Your task to perform on an android device: Go to battery settings Image 0: 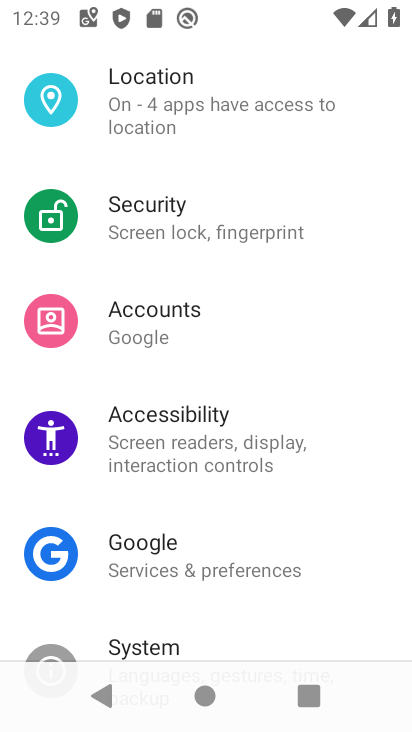
Step 0: press home button
Your task to perform on an android device: Go to battery settings Image 1: 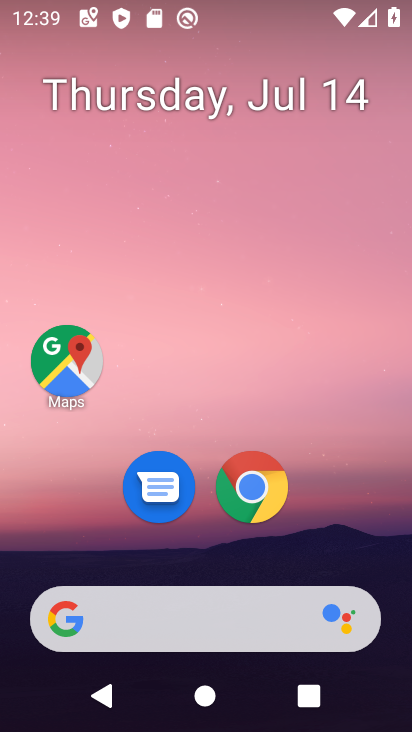
Step 1: drag from (231, 574) to (233, 243)
Your task to perform on an android device: Go to battery settings Image 2: 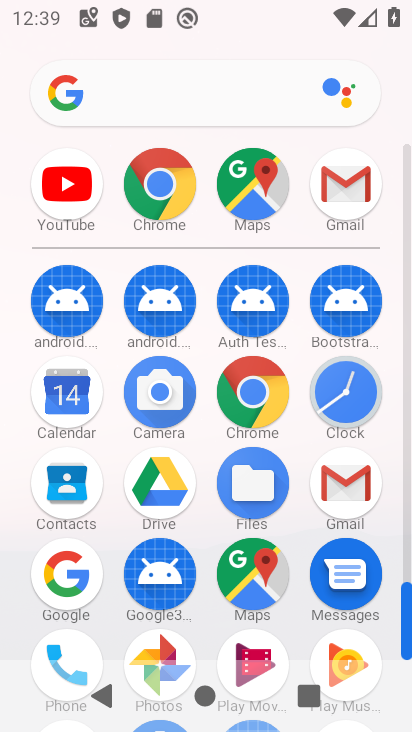
Step 2: drag from (218, 517) to (231, 336)
Your task to perform on an android device: Go to battery settings Image 3: 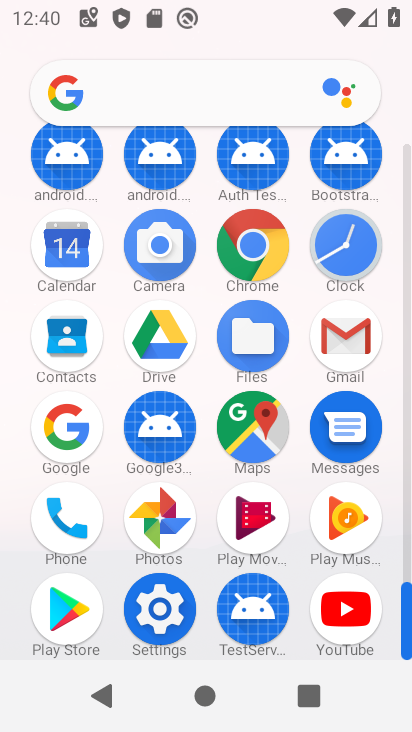
Step 3: click (177, 601)
Your task to perform on an android device: Go to battery settings Image 4: 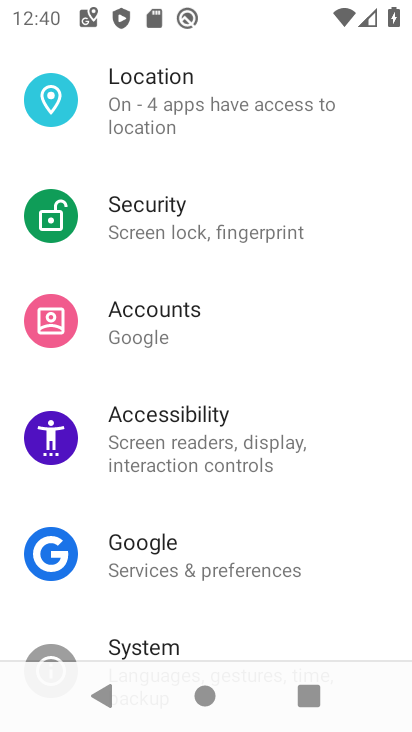
Step 4: drag from (194, 213) to (198, 660)
Your task to perform on an android device: Go to battery settings Image 5: 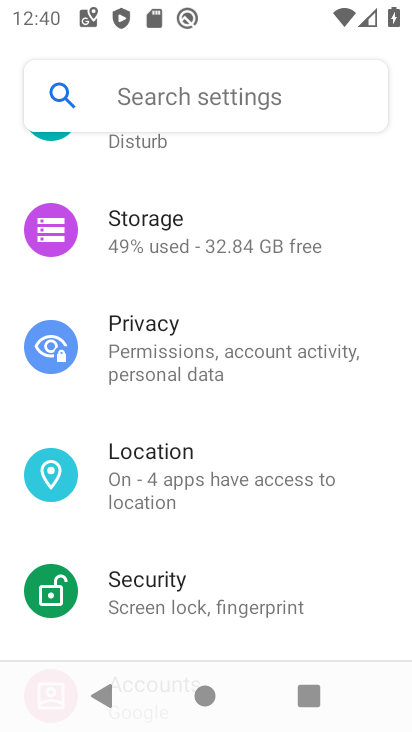
Step 5: drag from (210, 243) to (214, 625)
Your task to perform on an android device: Go to battery settings Image 6: 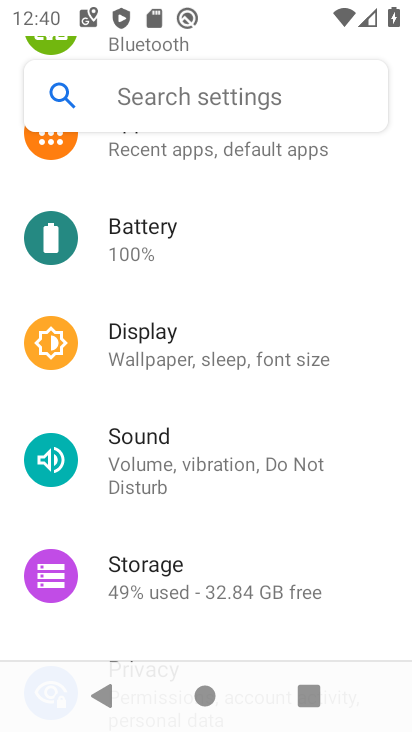
Step 6: click (206, 247)
Your task to perform on an android device: Go to battery settings Image 7: 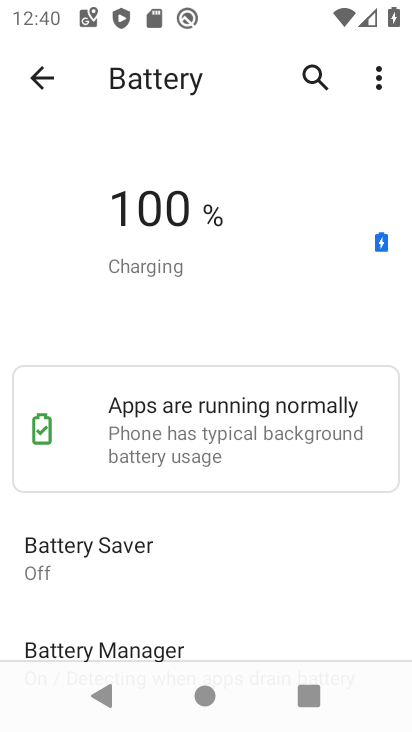
Step 7: task complete